Your task to perform on an android device: Go to display settings Image 0: 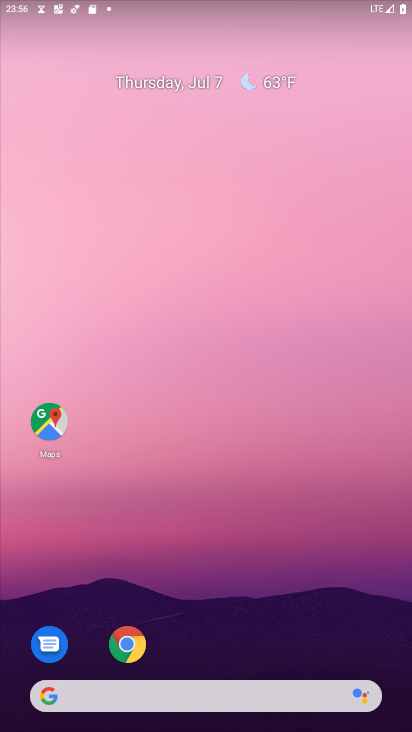
Step 0: drag from (226, 720) to (208, 76)
Your task to perform on an android device: Go to display settings Image 1: 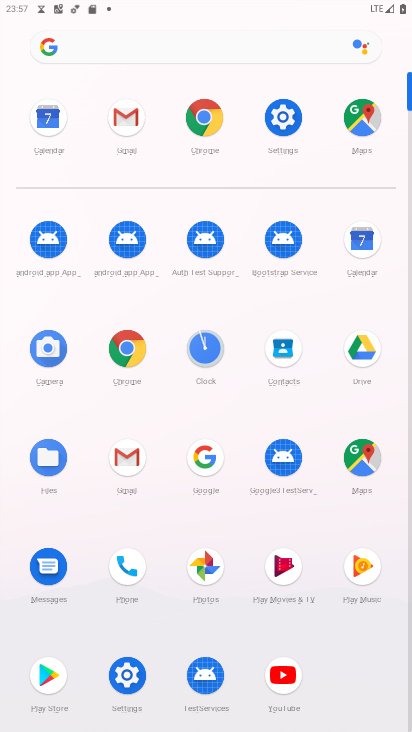
Step 1: click (288, 110)
Your task to perform on an android device: Go to display settings Image 2: 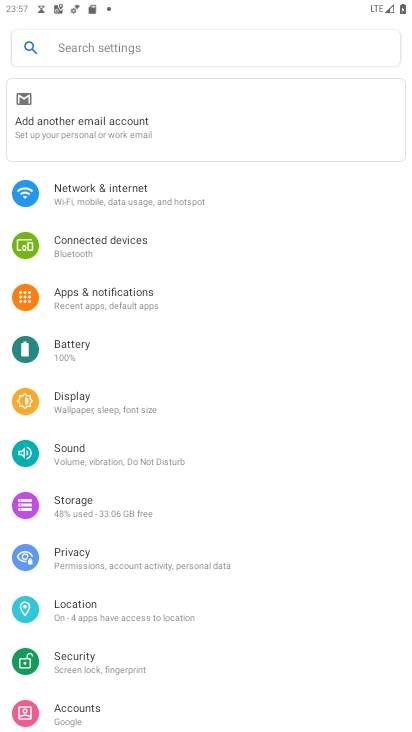
Step 2: click (70, 409)
Your task to perform on an android device: Go to display settings Image 3: 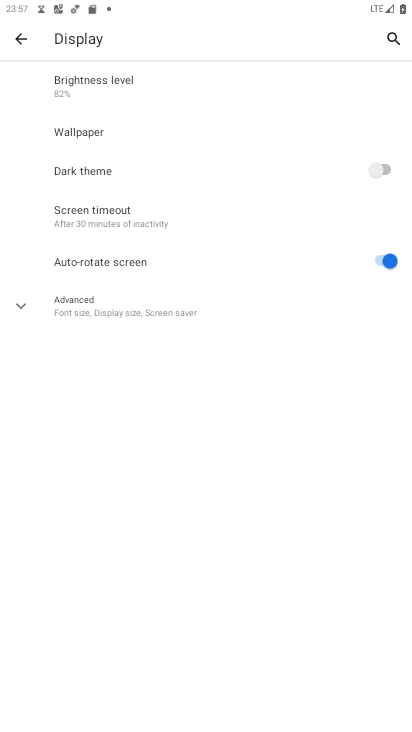
Step 3: task complete